Your task to perform on an android device: add a label to a message in the gmail app Image 0: 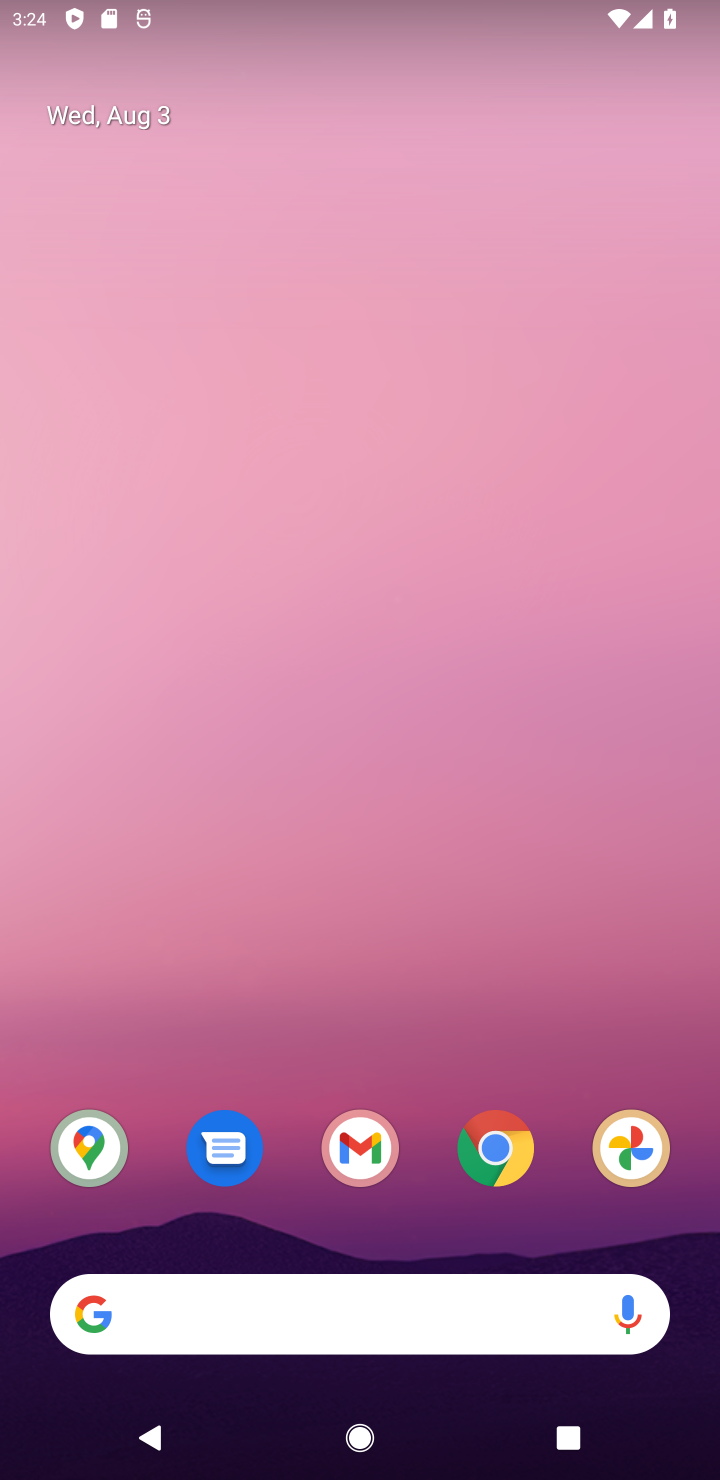
Step 0: drag from (411, 927) to (430, 75)
Your task to perform on an android device: add a label to a message in the gmail app Image 1: 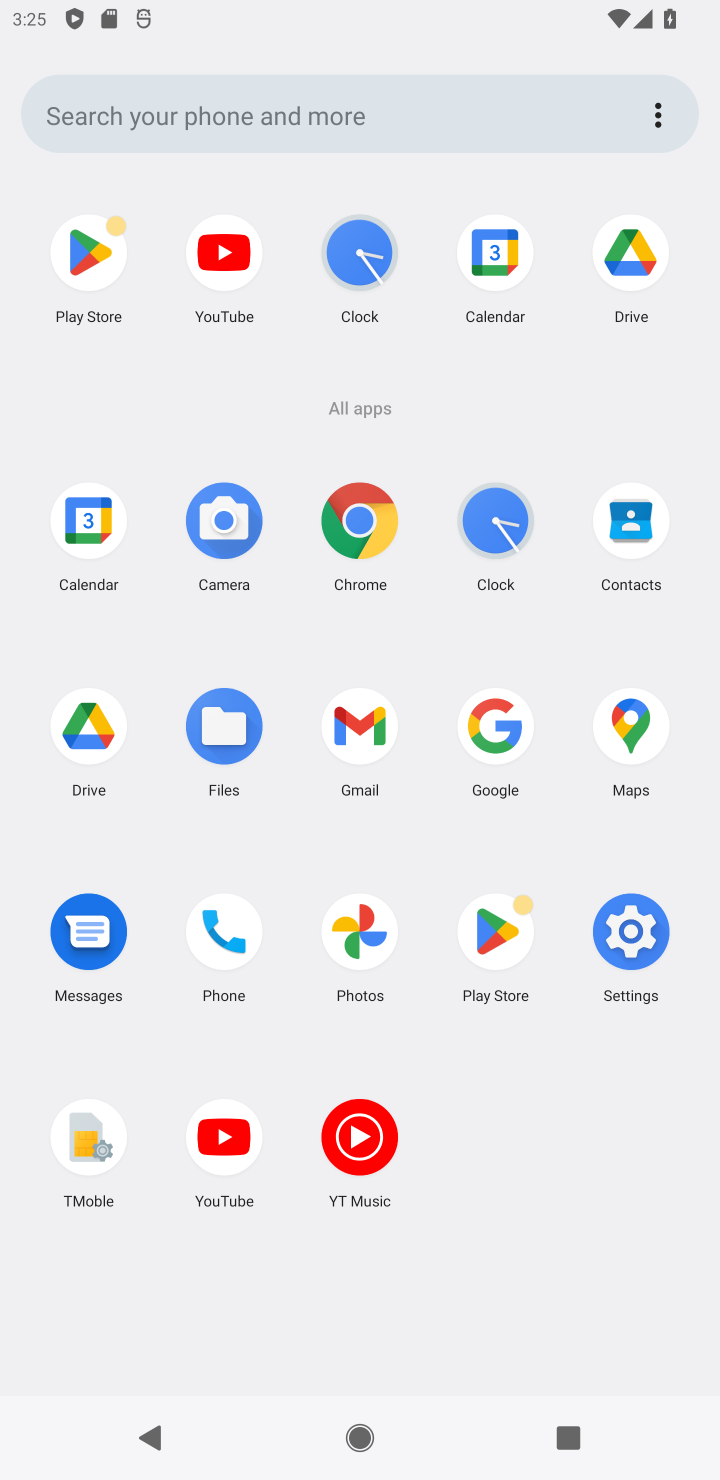
Step 1: click (358, 726)
Your task to perform on an android device: add a label to a message in the gmail app Image 2: 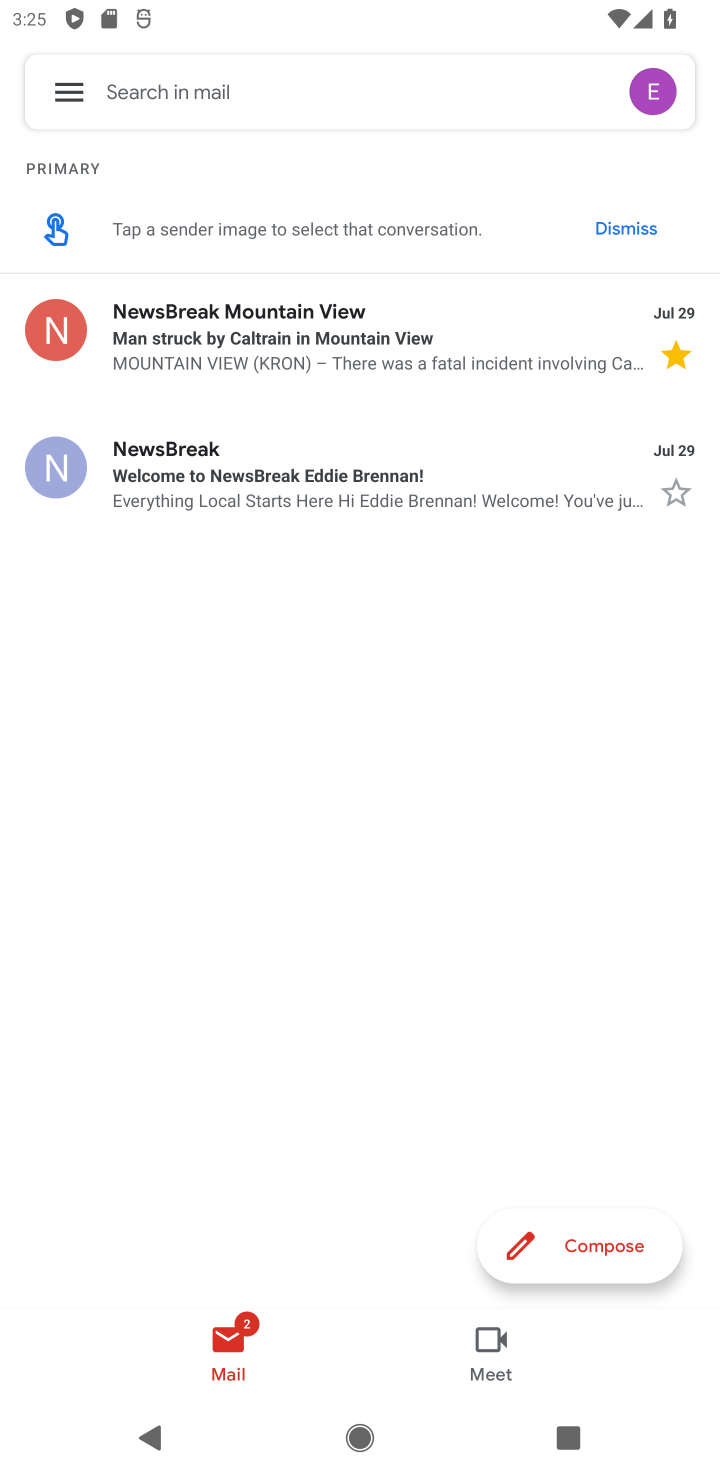
Step 2: click (323, 340)
Your task to perform on an android device: add a label to a message in the gmail app Image 3: 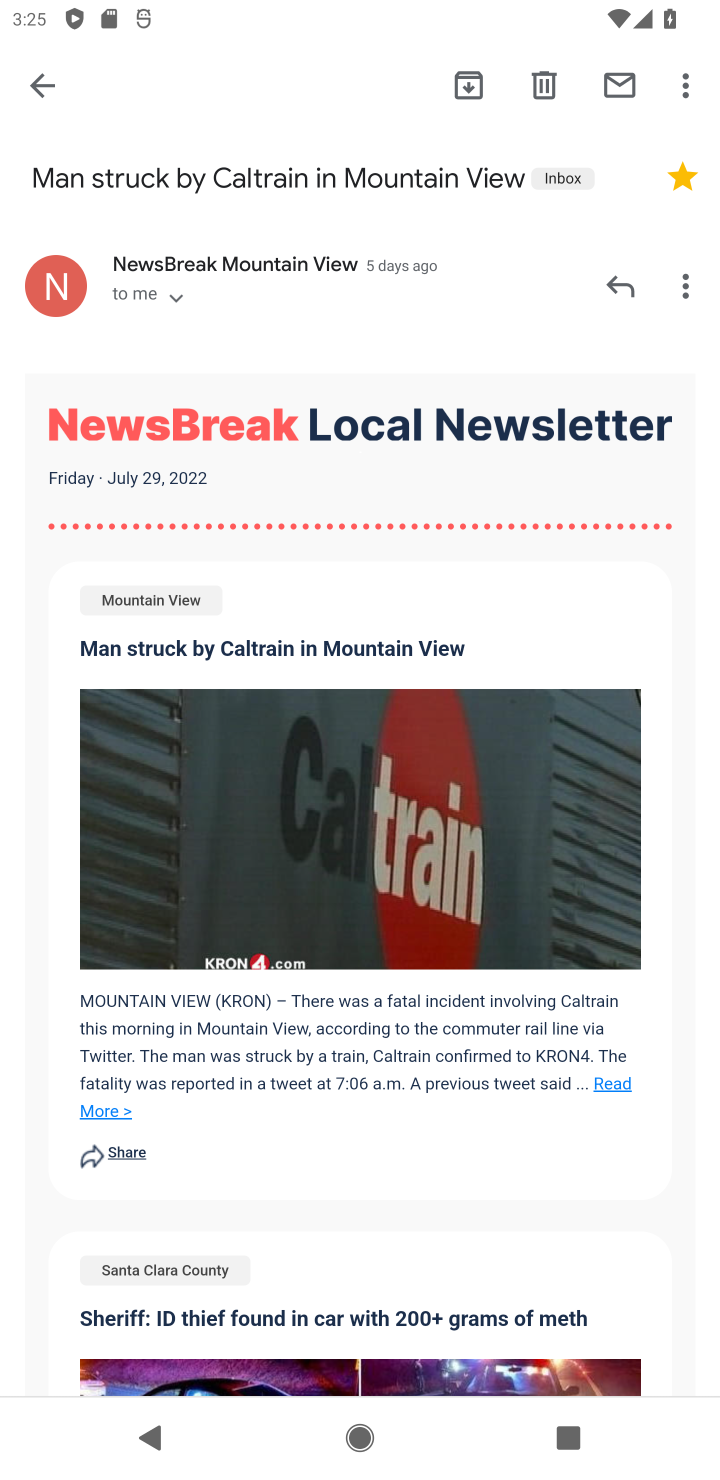
Step 3: click (572, 170)
Your task to perform on an android device: add a label to a message in the gmail app Image 4: 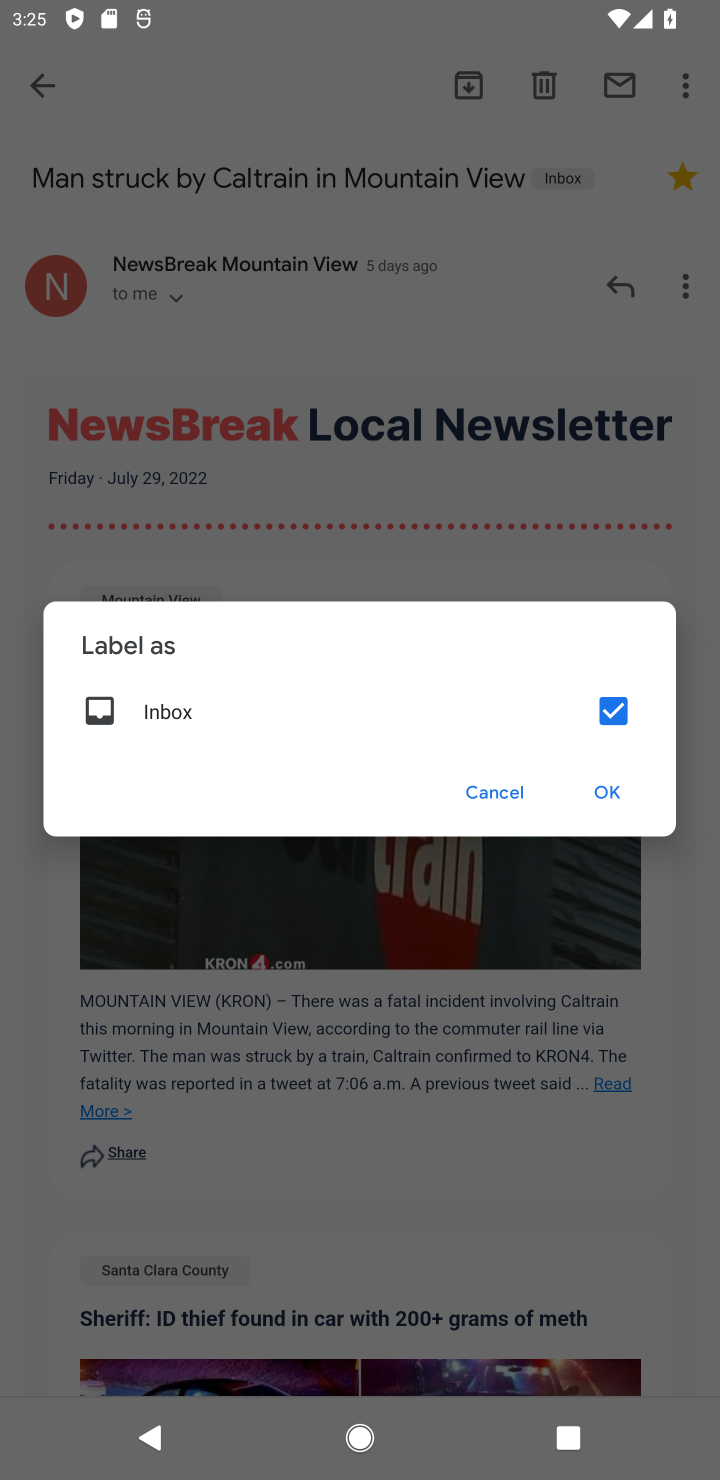
Step 4: click (610, 779)
Your task to perform on an android device: add a label to a message in the gmail app Image 5: 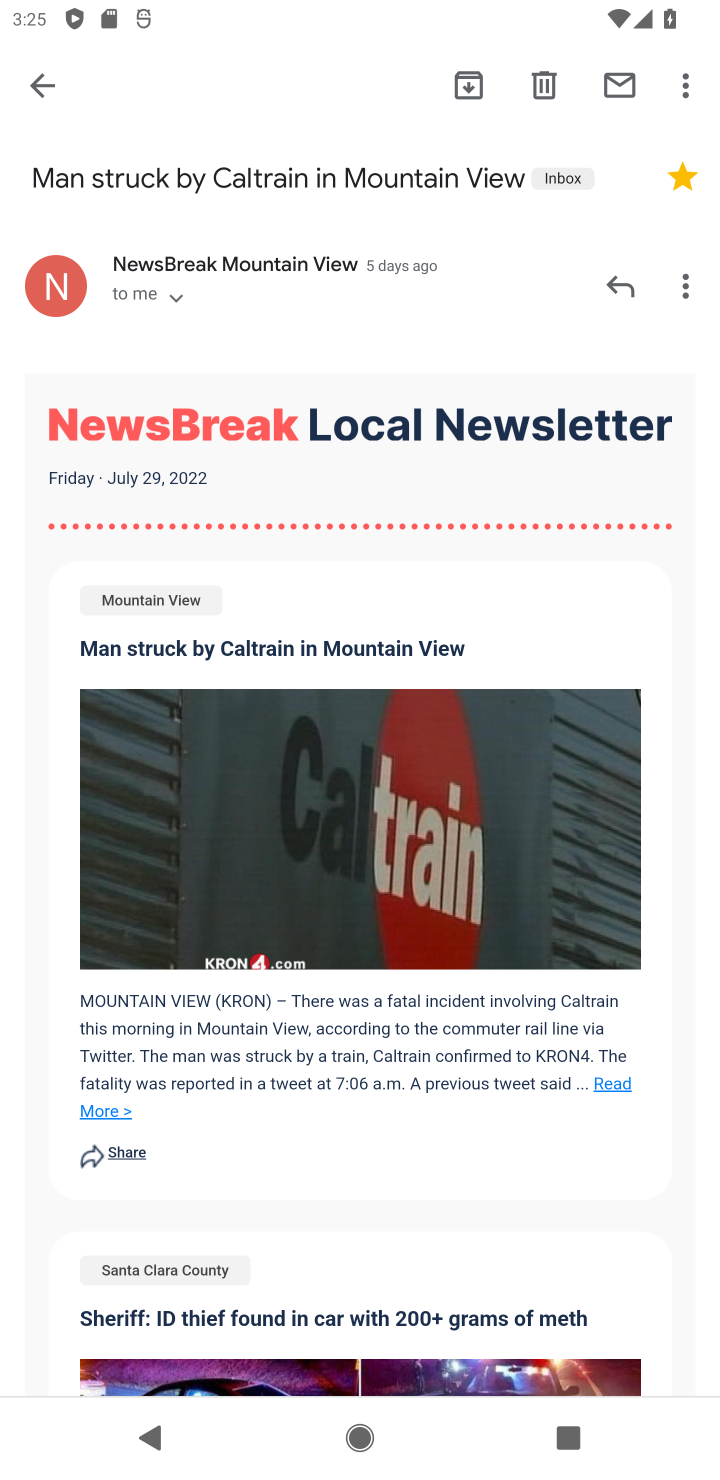
Step 5: click (35, 88)
Your task to perform on an android device: add a label to a message in the gmail app Image 6: 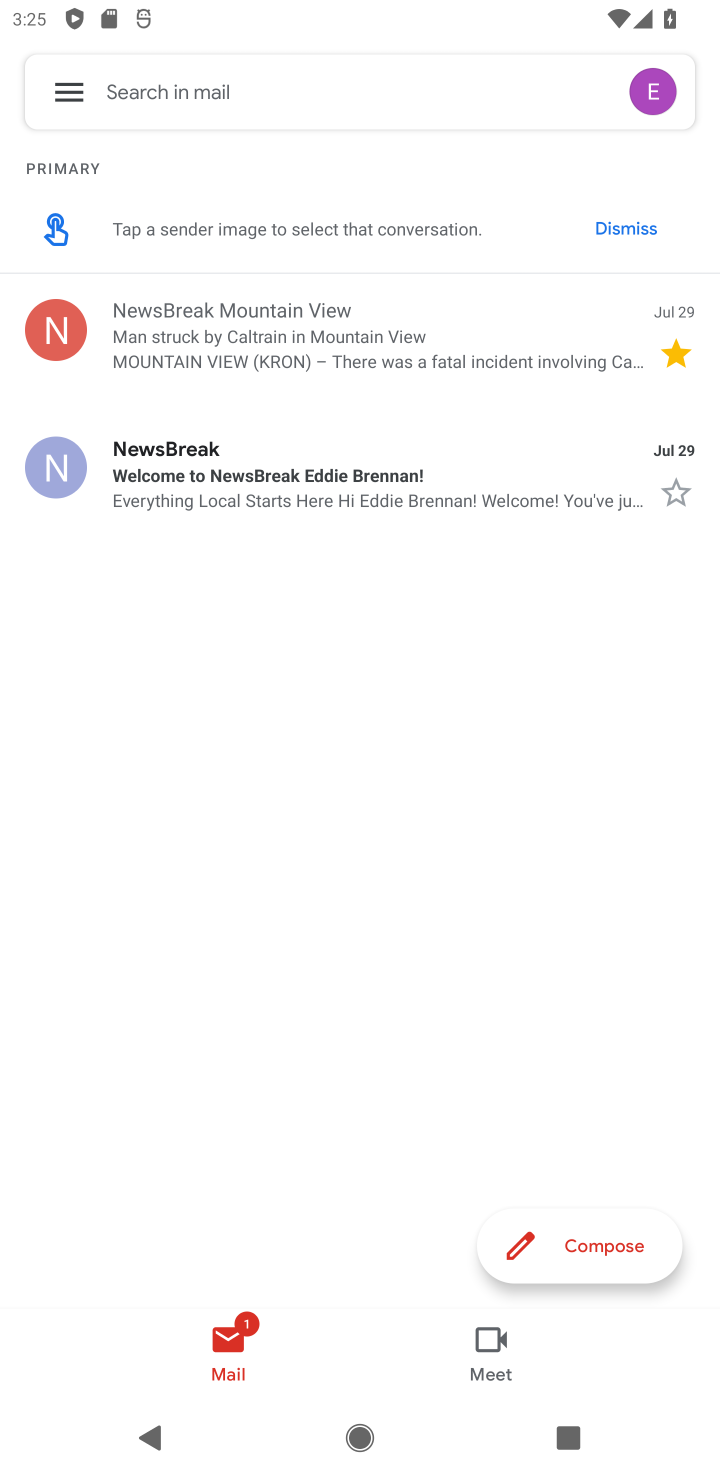
Step 6: click (264, 473)
Your task to perform on an android device: add a label to a message in the gmail app Image 7: 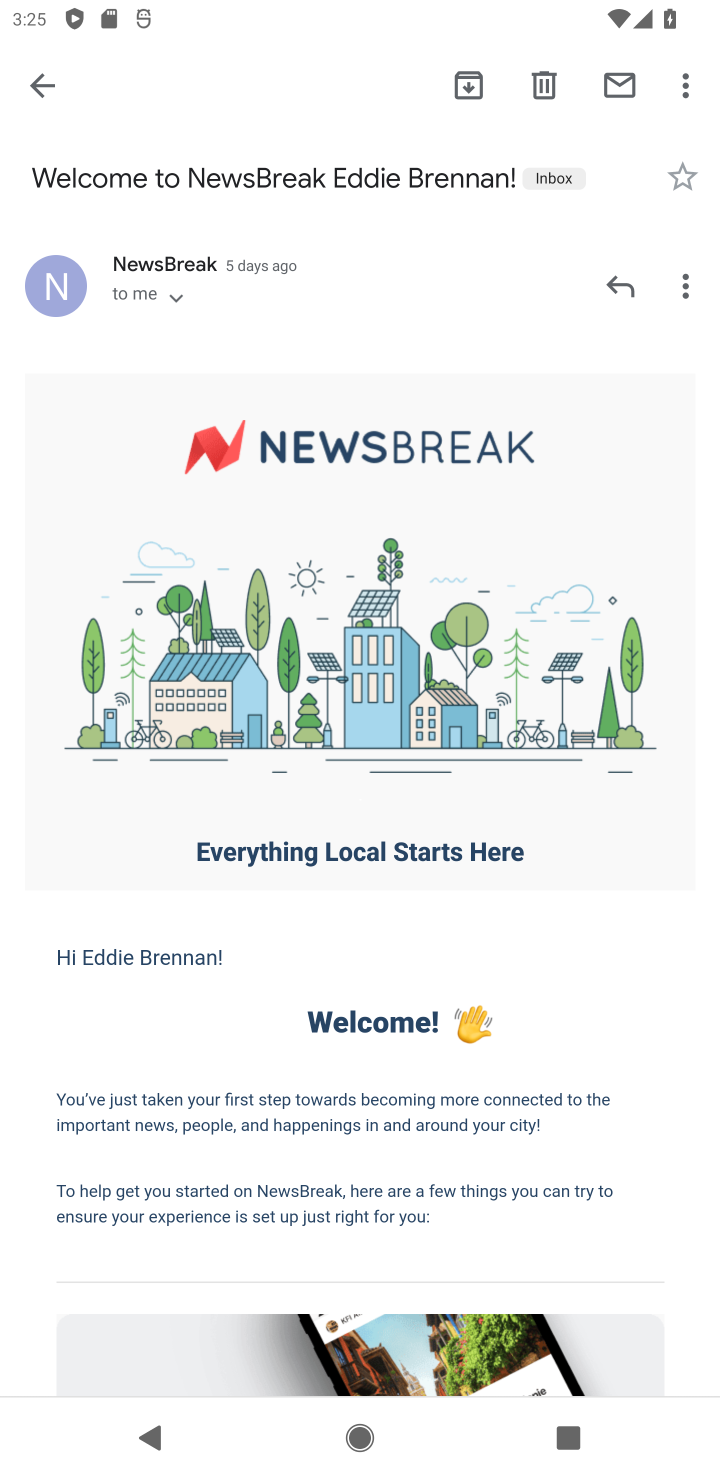
Step 7: click (554, 179)
Your task to perform on an android device: add a label to a message in the gmail app Image 8: 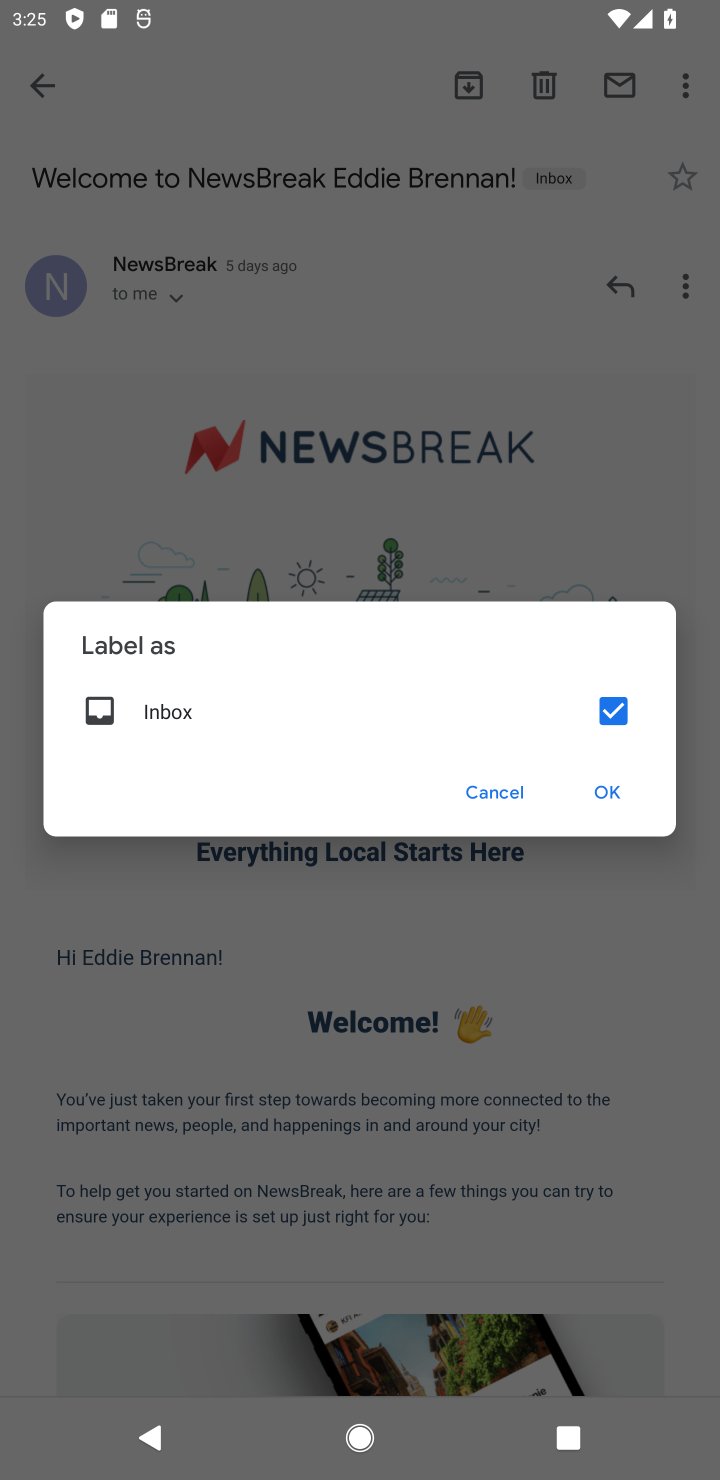
Step 8: click (608, 792)
Your task to perform on an android device: add a label to a message in the gmail app Image 9: 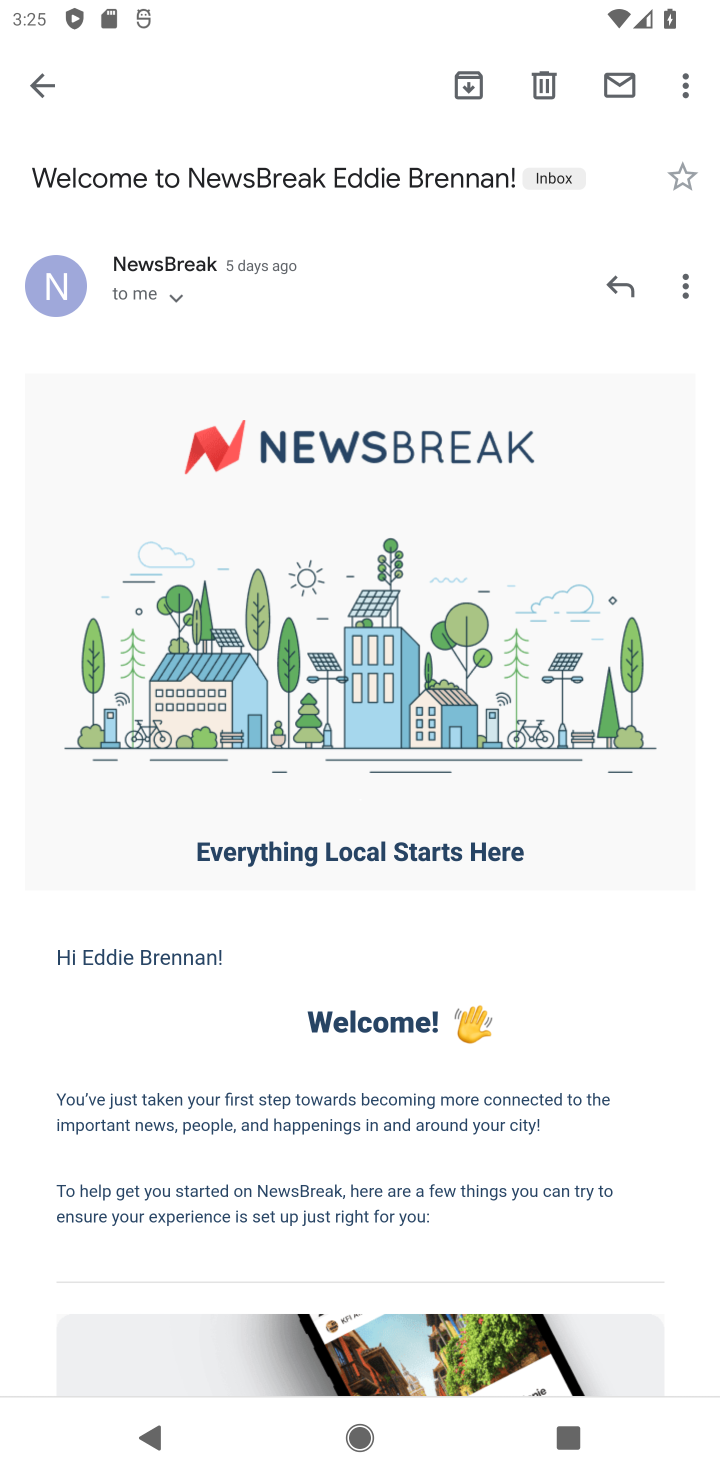
Step 9: task complete